Your task to perform on an android device: Go to notification settings Image 0: 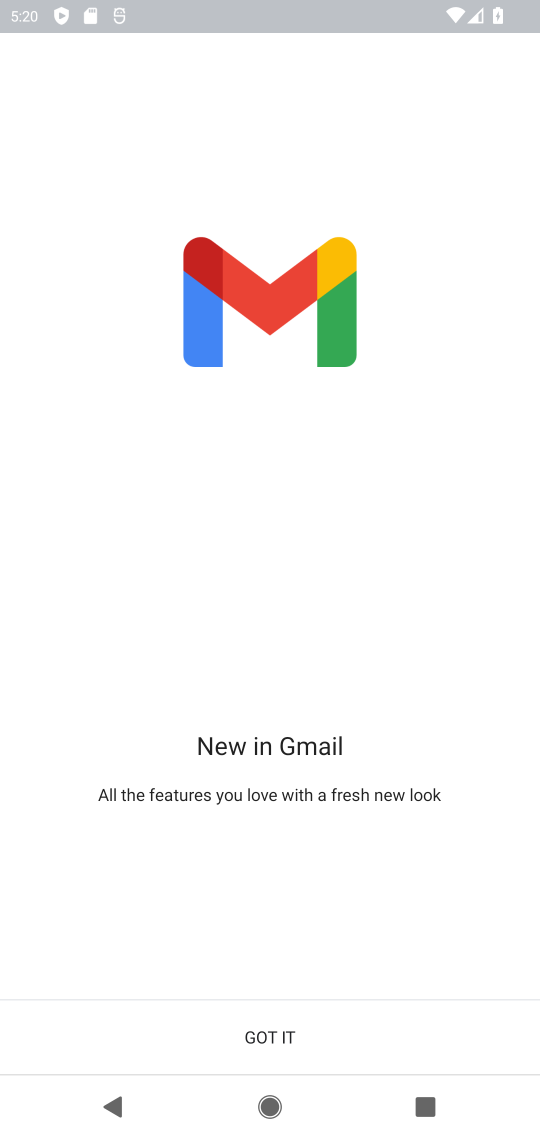
Step 0: press home button
Your task to perform on an android device: Go to notification settings Image 1: 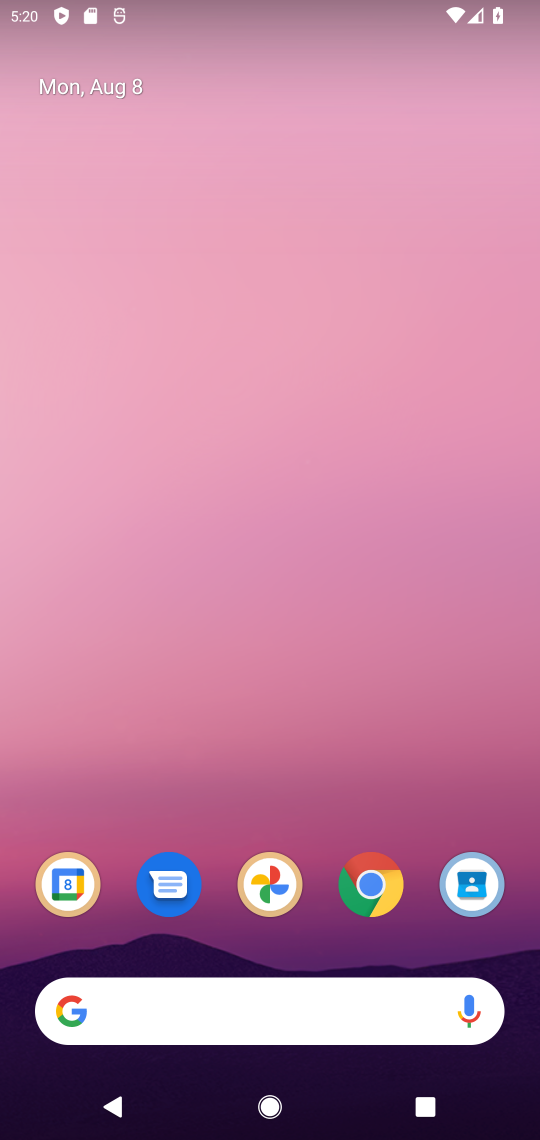
Step 1: drag from (432, 963) to (219, 23)
Your task to perform on an android device: Go to notification settings Image 2: 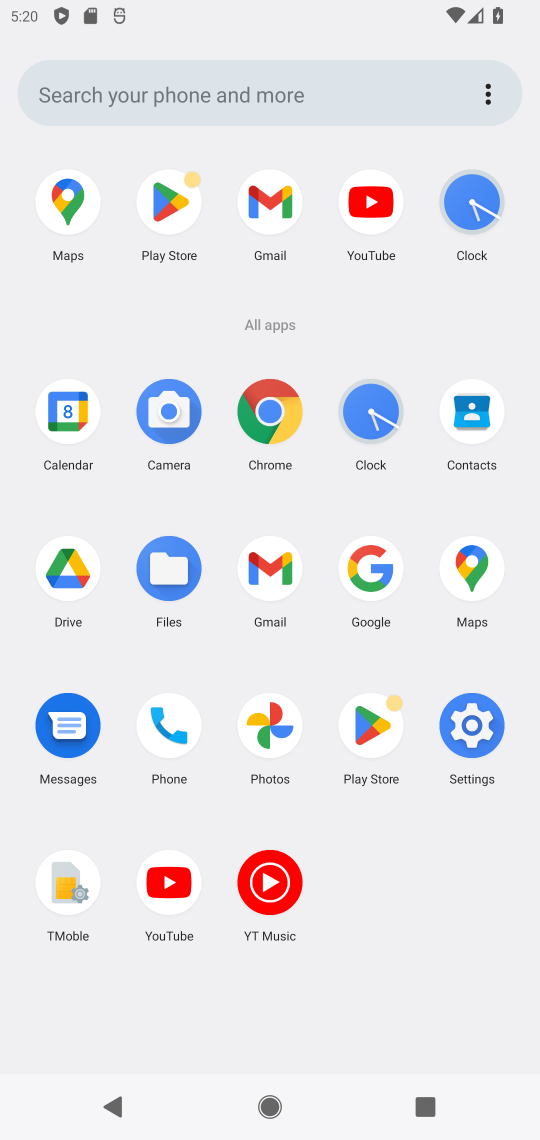
Step 2: click (483, 742)
Your task to perform on an android device: Go to notification settings Image 3: 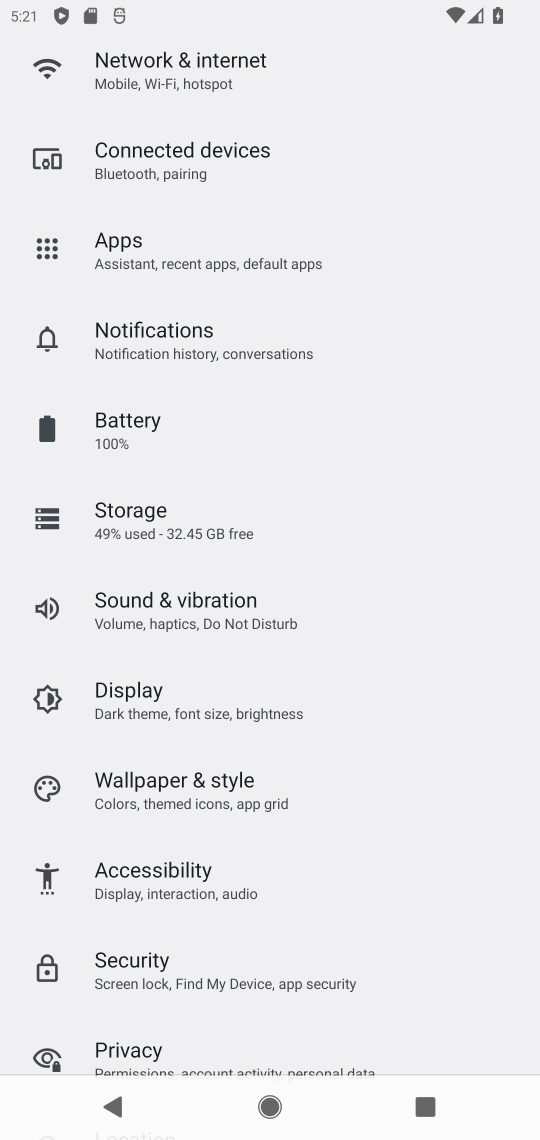
Step 3: click (247, 348)
Your task to perform on an android device: Go to notification settings Image 4: 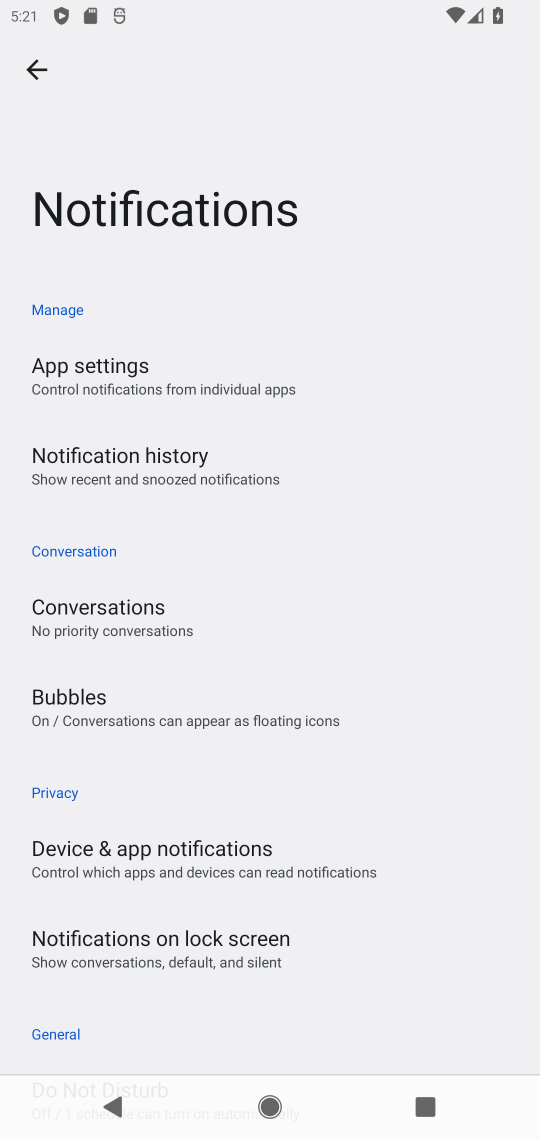
Step 4: task complete